Your task to perform on an android device: Open the web browser Image 0: 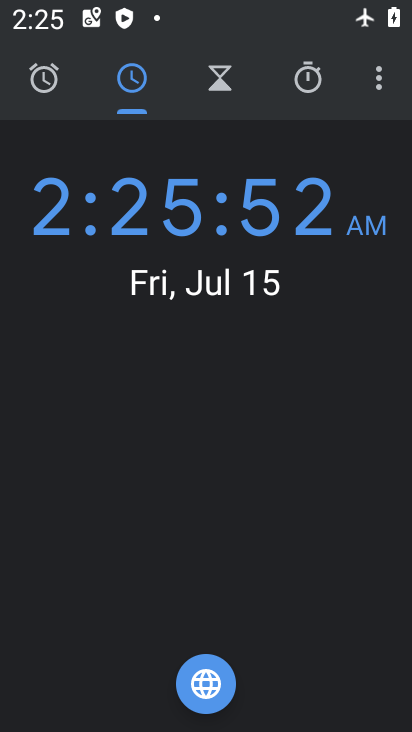
Step 0: press home button
Your task to perform on an android device: Open the web browser Image 1: 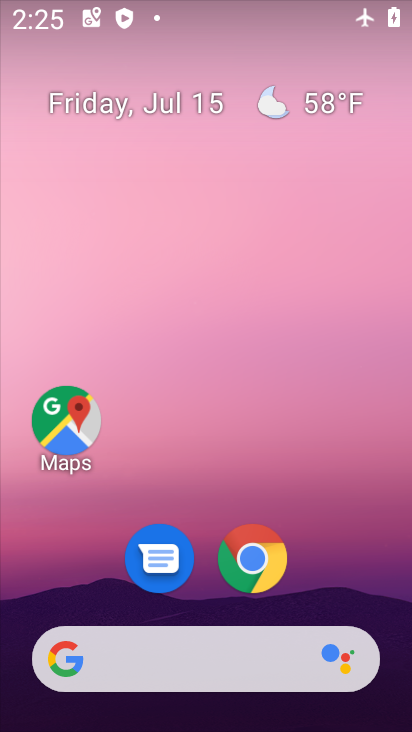
Step 1: drag from (332, 565) to (342, 73)
Your task to perform on an android device: Open the web browser Image 2: 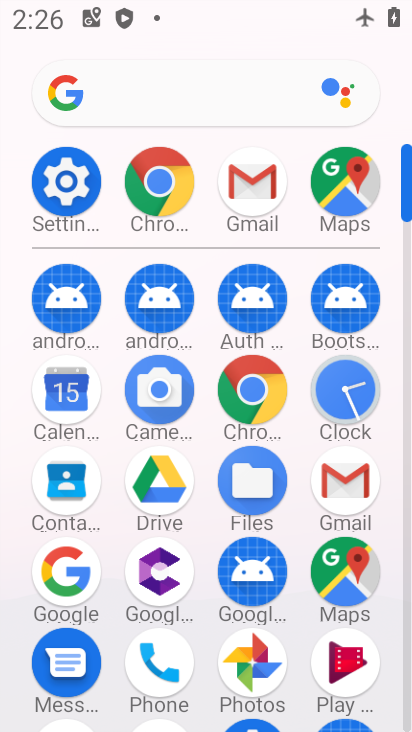
Step 2: click (273, 382)
Your task to perform on an android device: Open the web browser Image 3: 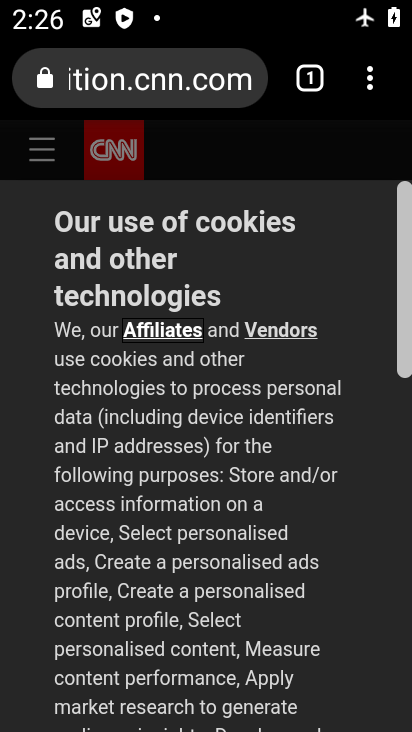
Step 3: task complete